Your task to perform on an android device: turn off smart reply in the gmail app Image 0: 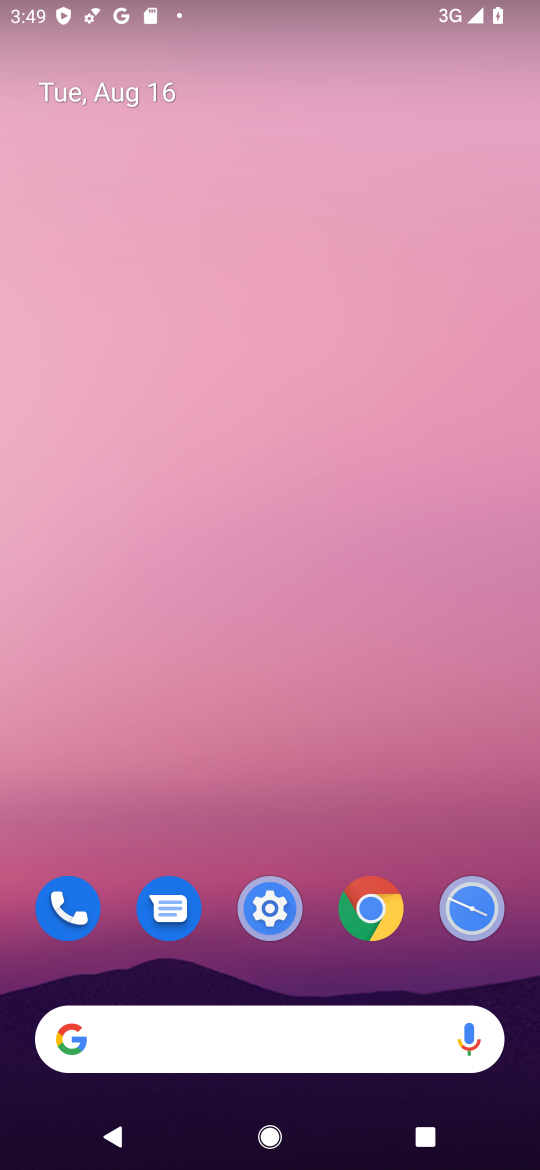
Step 0: drag from (291, 685) to (326, 154)
Your task to perform on an android device: turn off smart reply in the gmail app Image 1: 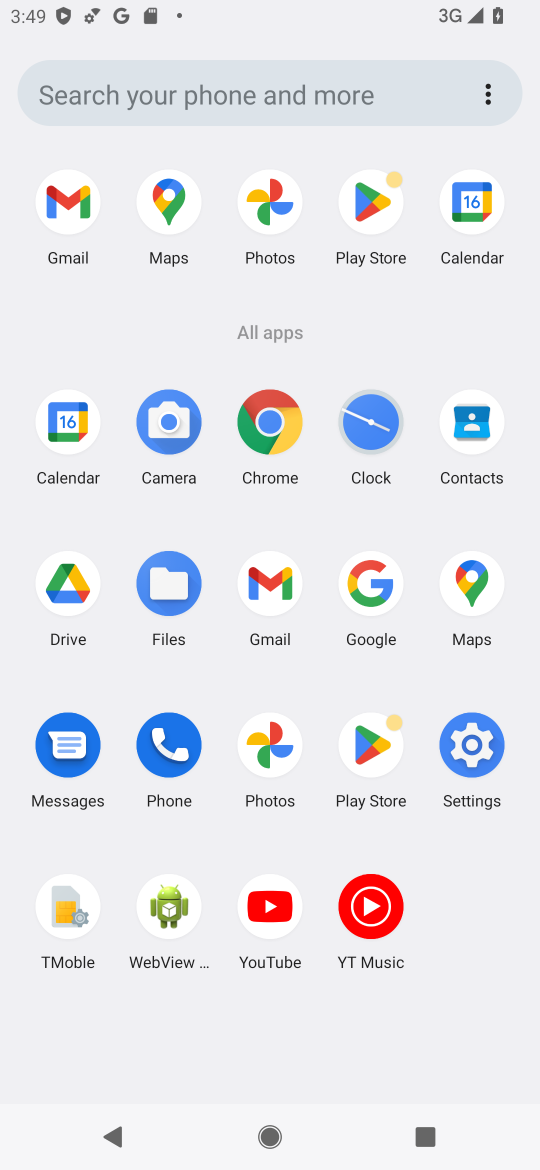
Step 1: click (64, 205)
Your task to perform on an android device: turn off smart reply in the gmail app Image 2: 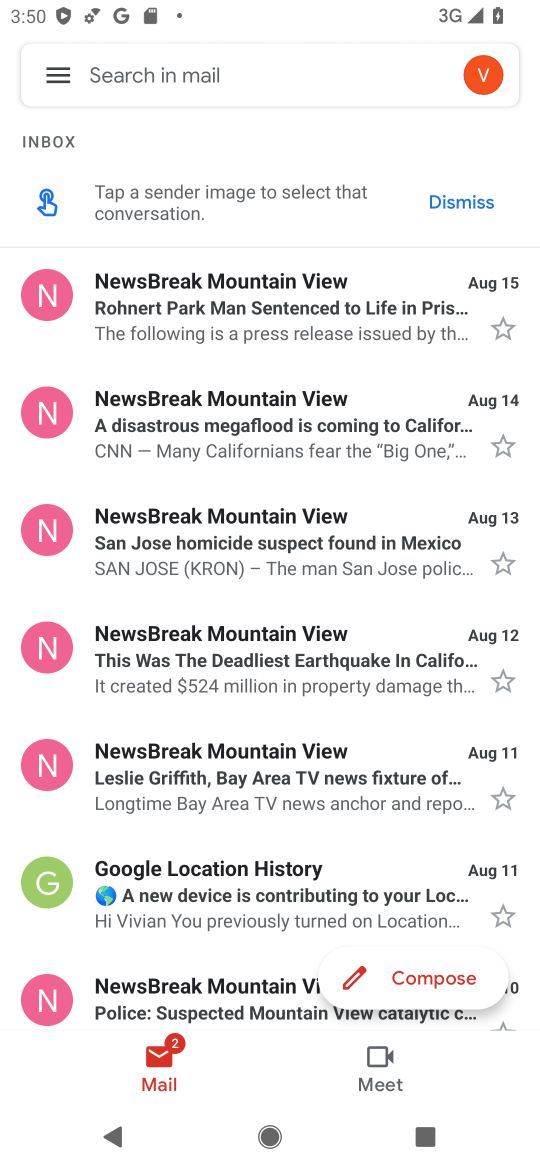
Step 2: click (48, 81)
Your task to perform on an android device: turn off smart reply in the gmail app Image 3: 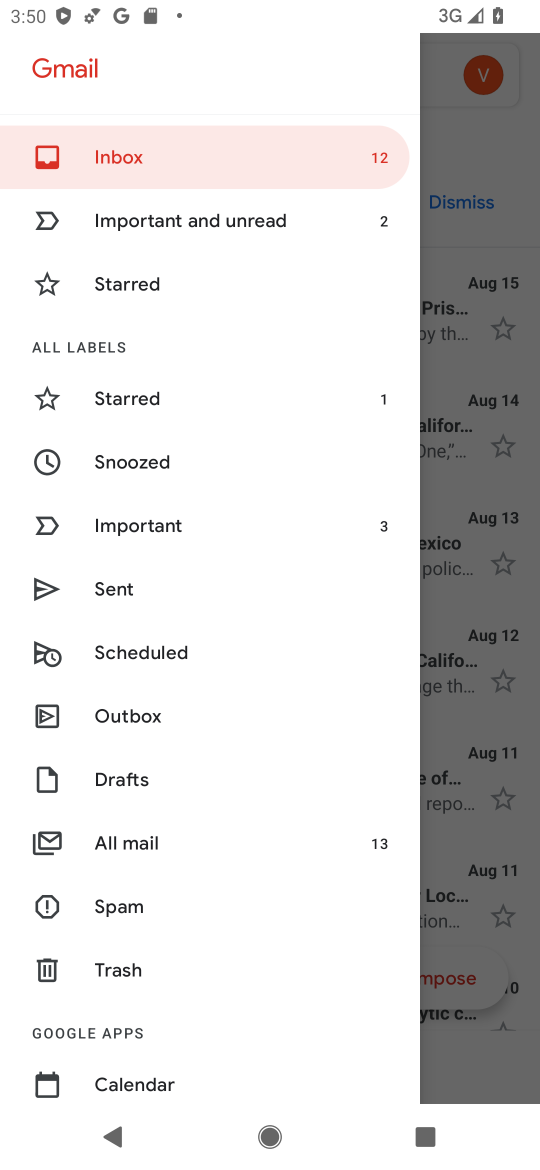
Step 3: drag from (230, 740) to (235, 111)
Your task to perform on an android device: turn off smart reply in the gmail app Image 4: 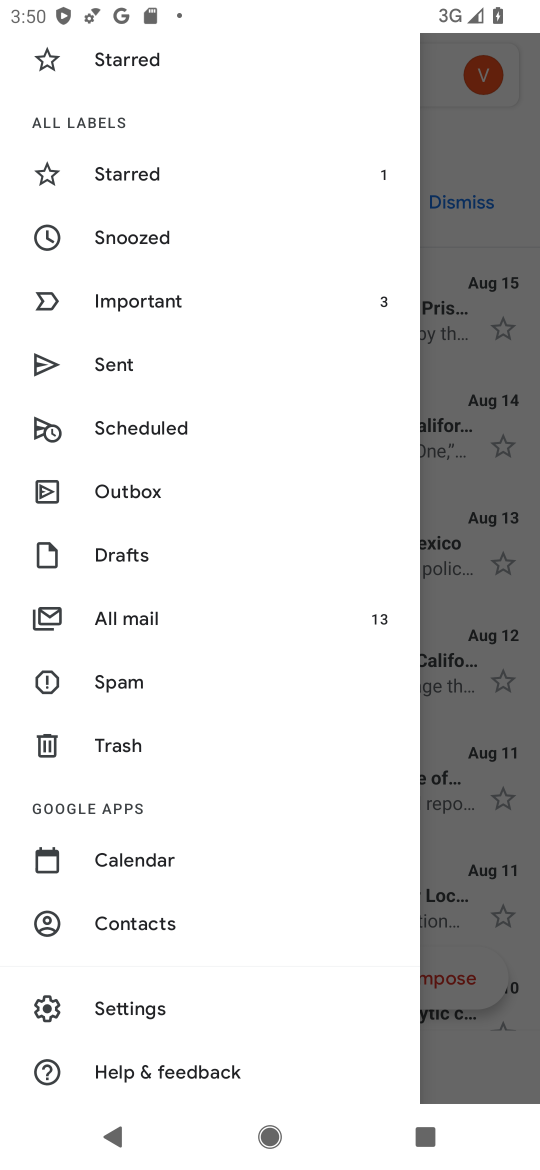
Step 4: click (131, 1003)
Your task to perform on an android device: turn off smart reply in the gmail app Image 5: 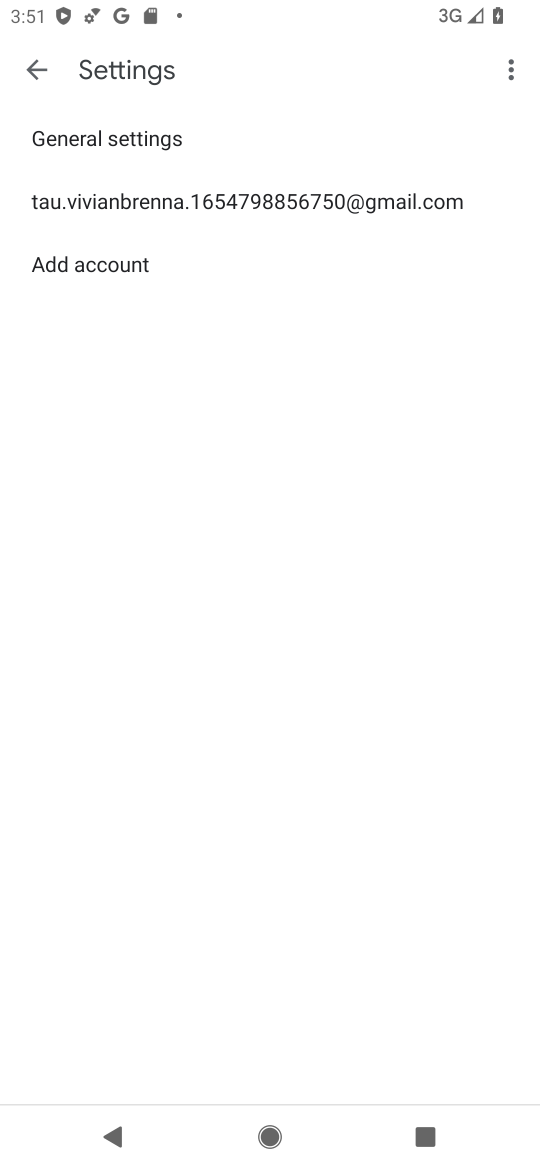
Step 5: click (241, 193)
Your task to perform on an android device: turn off smart reply in the gmail app Image 6: 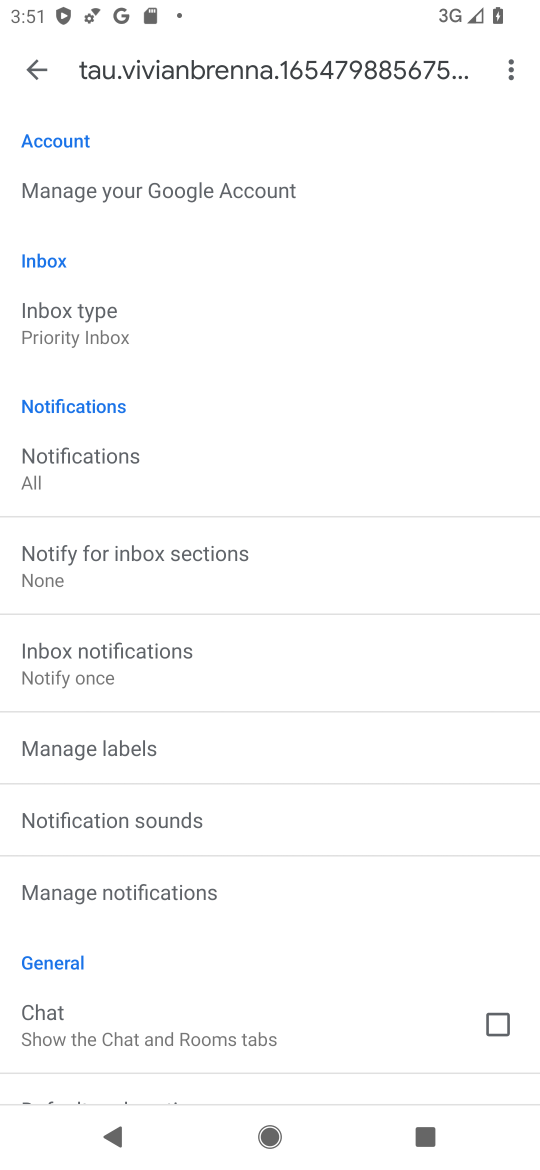
Step 6: drag from (172, 982) to (368, 0)
Your task to perform on an android device: turn off smart reply in the gmail app Image 7: 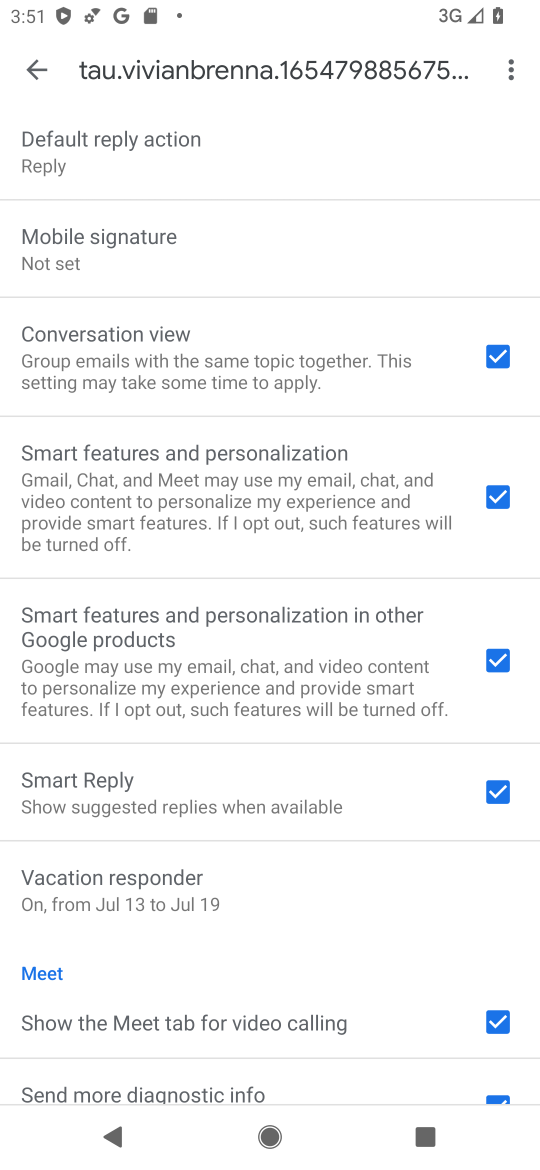
Step 7: click (499, 795)
Your task to perform on an android device: turn off smart reply in the gmail app Image 8: 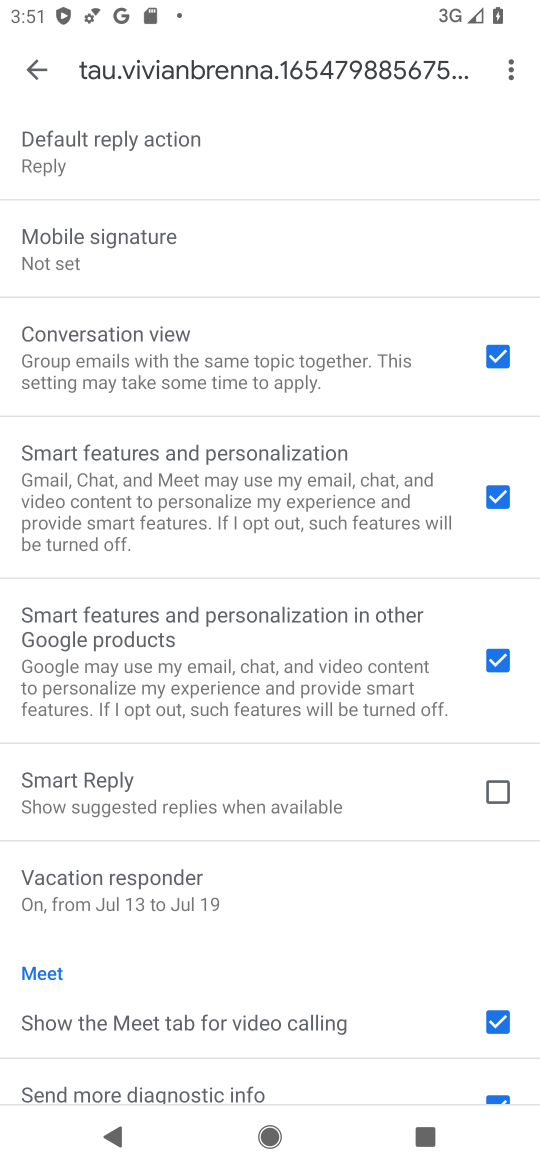
Step 8: task complete